Your task to perform on an android device: toggle notification dots Image 0: 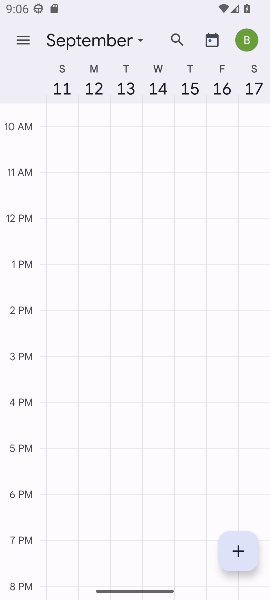
Step 0: press home button
Your task to perform on an android device: toggle notification dots Image 1: 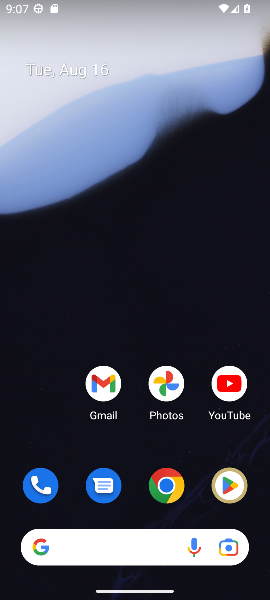
Step 1: drag from (187, 457) to (94, 10)
Your task to perform on an android device: toggle notification dots Image 2: 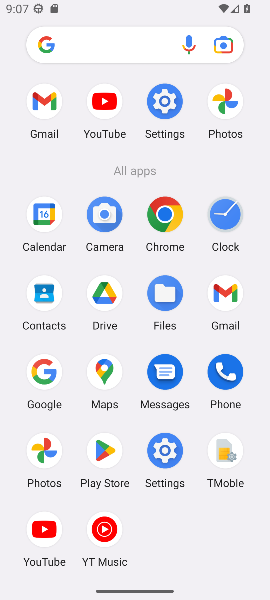
Step 2: click (170, 102)
Your task to perform on an android device: toggle notification dots Image 3: 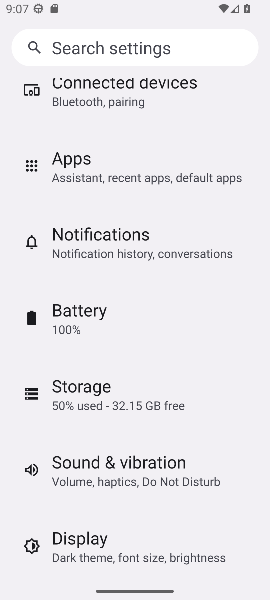
Step 3: click (70, 232)
Your task to perform on an android device: toggle notification dots Image 4: 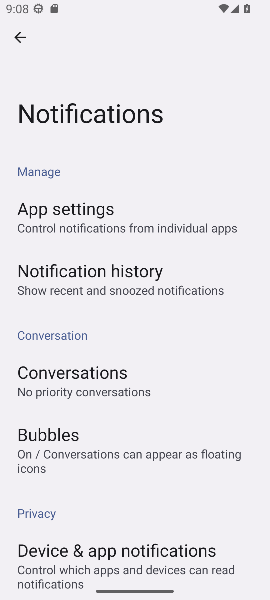
Step 4: drag from (175, 476) to (116, 84)
Your task to perform on an android device: toggle notification dots Image 5: 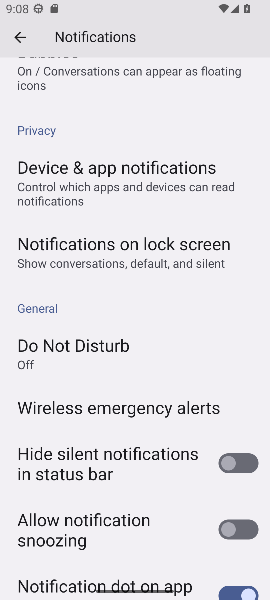
Step 5: drag from (162, 443) to (97, 24)
Your task to perform on an android device: toggle notification dots Image 6: 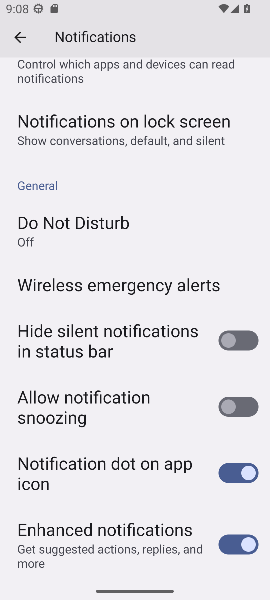
Step 6: click (238, 474)
Your task to perform on an android device: toggle notification dots Image 7: 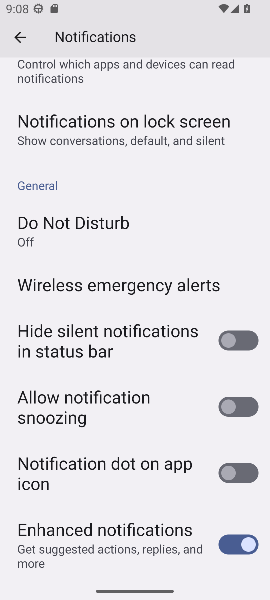
Step 7: task complete